Your task to perform on an android device: Open network settings Image 0: 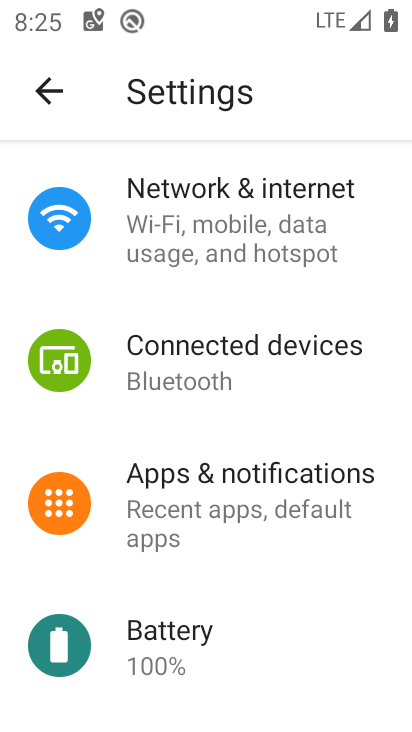
Step 0: press home button
Your task to perform on an android device: Open network settings Image 1: 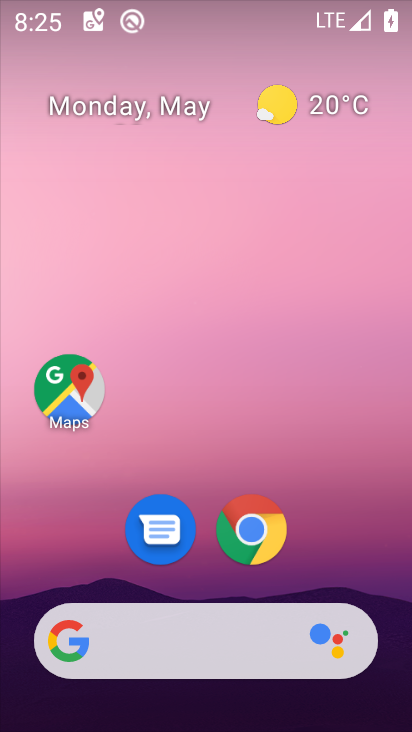
Step 1: drag from (43, 607) to (180, 132)
Your task to perform on an android device: Open network settings Image 2: 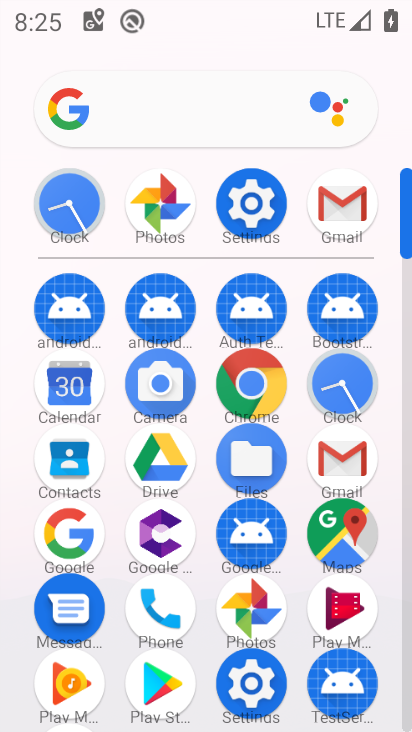
Step 2: click (241, 203)
Your task to perform on an android device: Open network settings Image 3: 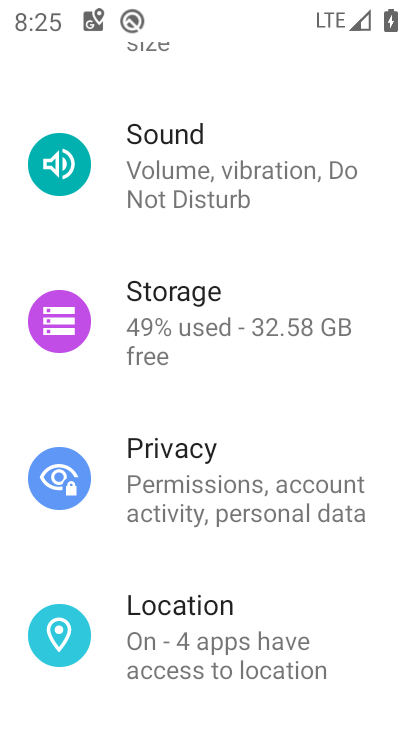
Step 3: drag from (279, 135) to (182, 579)
Your task to perform on an android device: Open network settings Image 4: 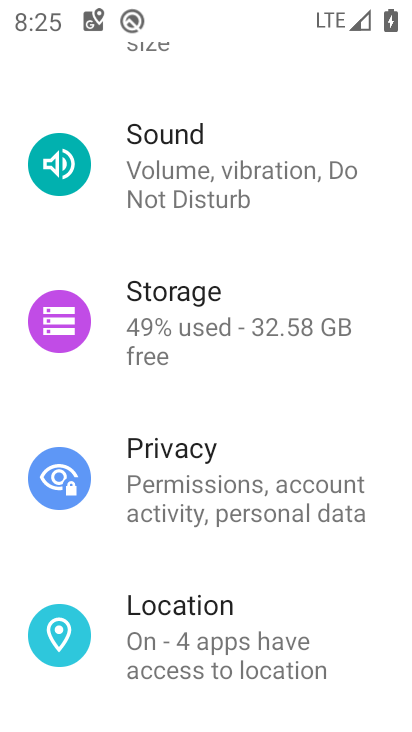
Step 4: drag from (103, 210) to (70, 542)
Your task to perform on an android device: Open network settings Image 5: 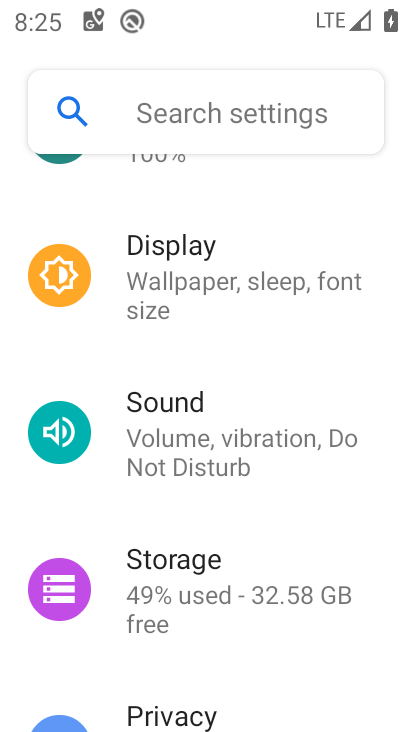
Step 5: drag from (189, 183) to (139, 621)
Your task to perform on an android device: Open network settings Image 6: 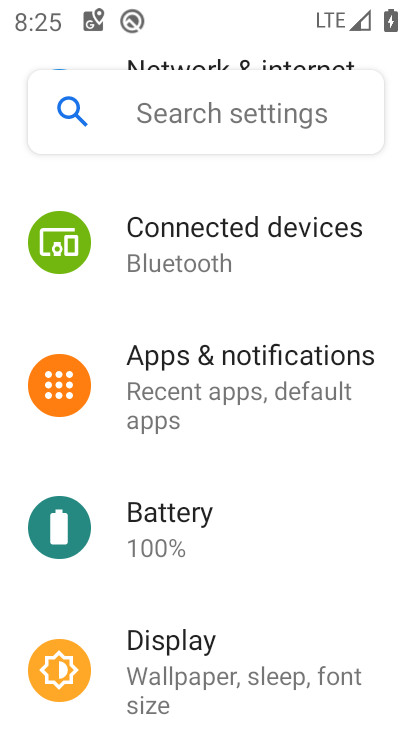
Step 6: drag from (188, 294) to (161, 599)
Your task to perform on an android device: Open network settings Image 7: 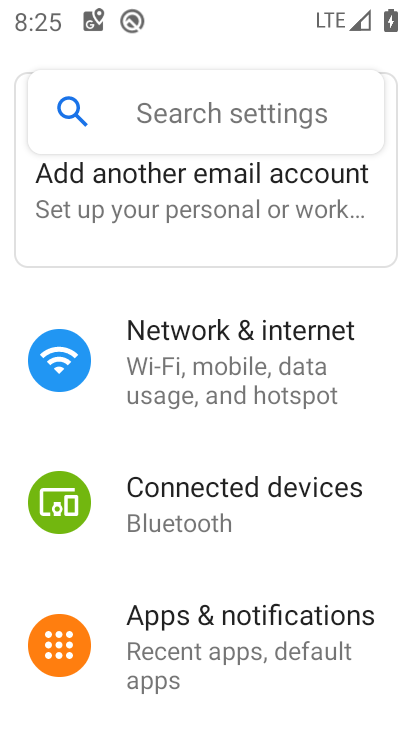
Step 7: click (215, 360)
Your task to perform on an android device: Open network settings Image 8: 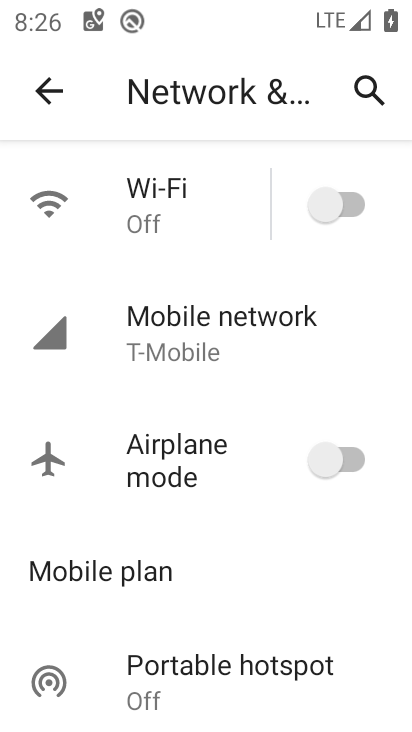
Step 8: task complete